Your task to perform on an android device: set an alarm Image 0: 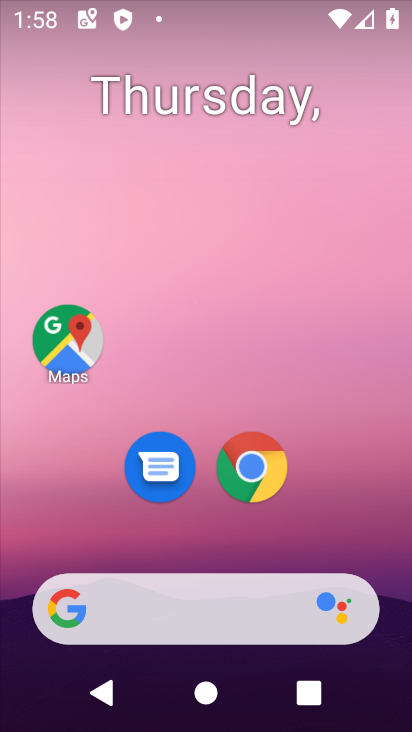
Step 0: drag from (373, 530) to (356, 65)
Your task to perform on an android device: set an alarm Image 1: 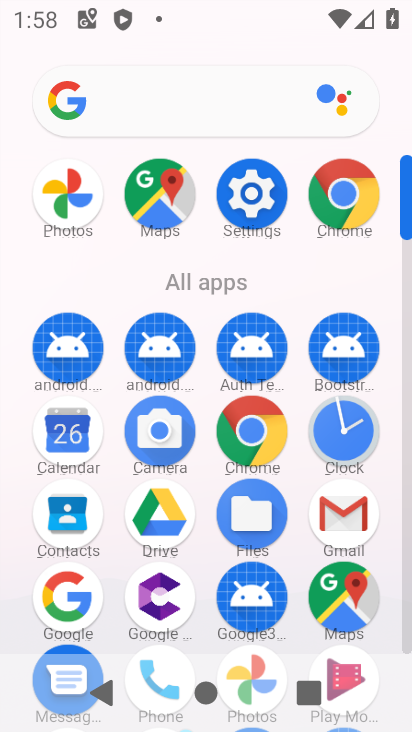
Step 1: click (310, 431)
Your task to perform on an android device: set an alarm Image 2: 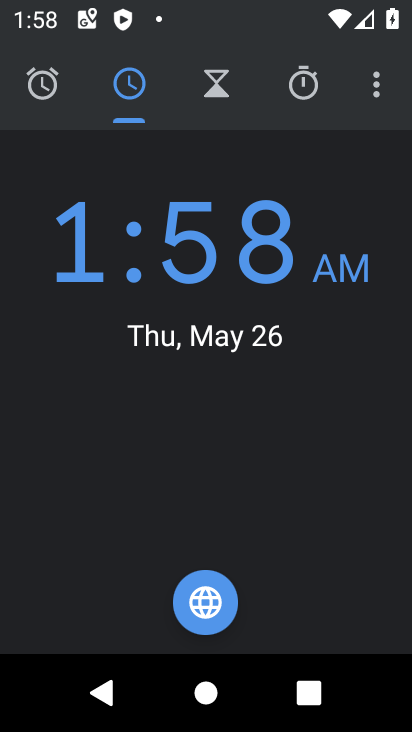
Step 2: click (54, 90)
Your task to perform on an android device: set an alarm Image 3: 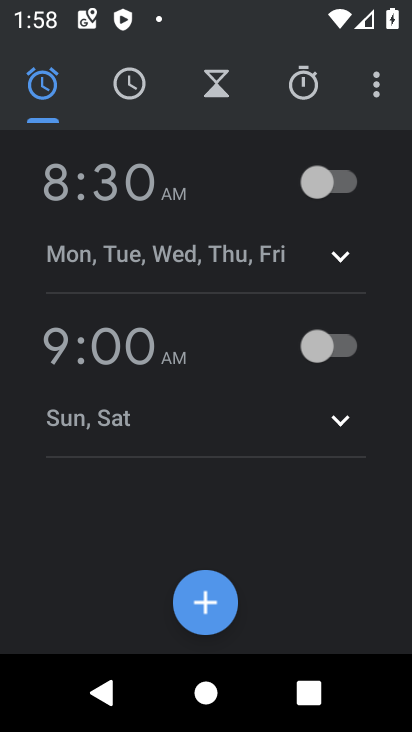
Step 3: click (216, 611)
Your task to perform on an android device: set an alarm Image 4: 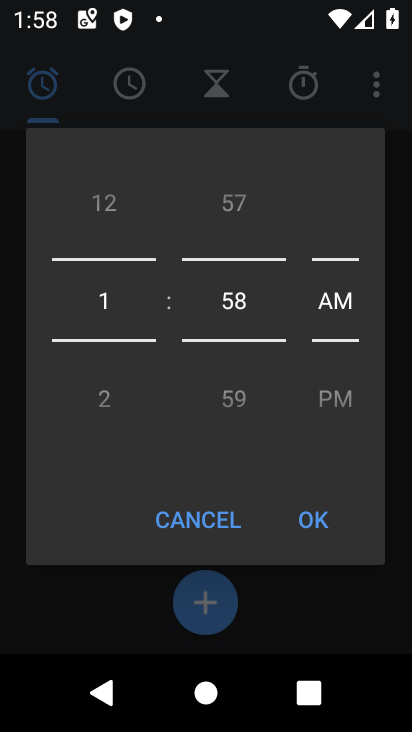
Step 4: click (311, 527)
Your task to perform on an android device: set an alarm Image 5: 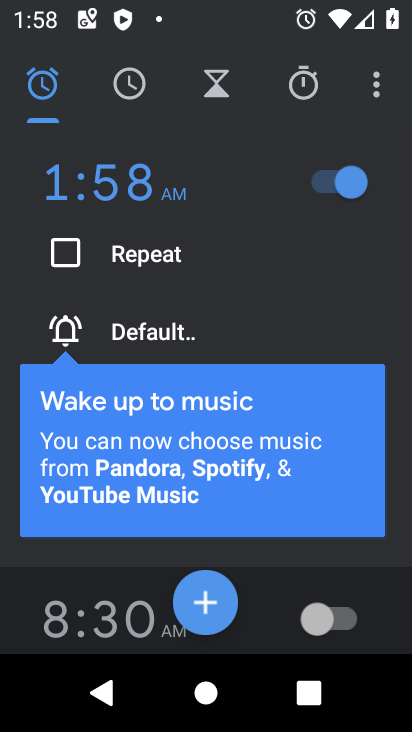
Step 5: task complete